Your task to perform on an android device: How much does a 2 bedroom apartment rent for in Chicago? Image 0: 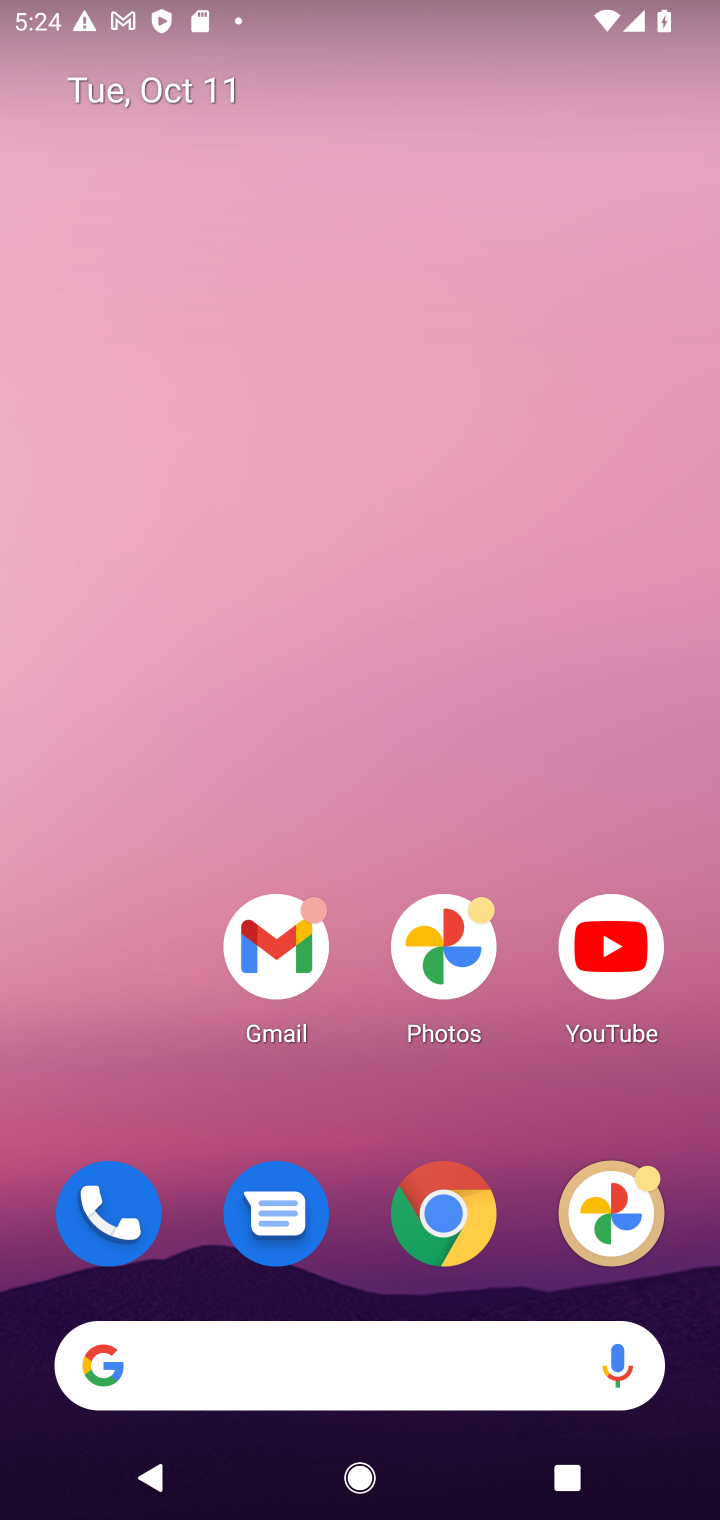
Step 0: drag from (383, 1175) to (404, 258)
Your task to perform on an android device: How much does a 2 bedroom apartment rent for in Chicago? Image 1: 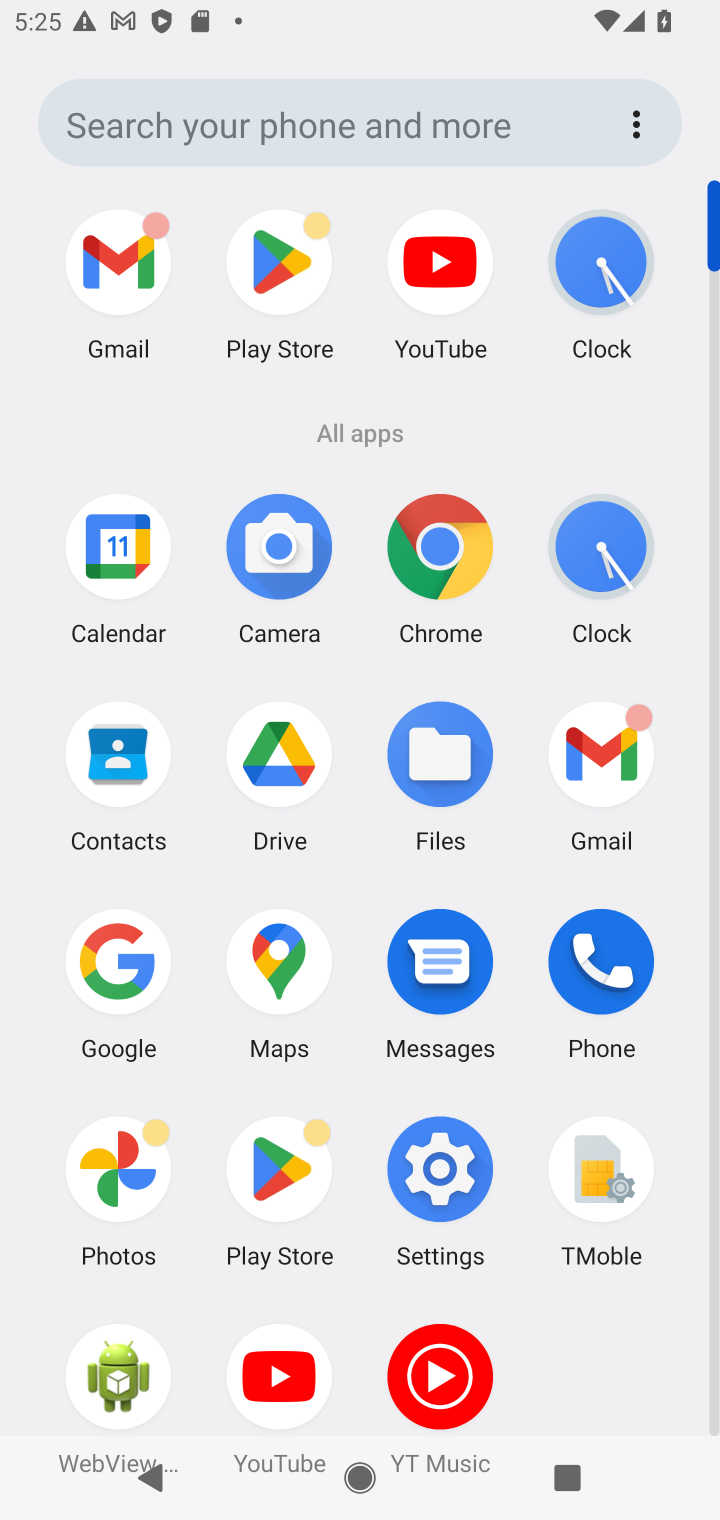
Step 1: click (113, 957)
Your task to perform on an android device: How much does a 2 bedroom apartment rent for in Chicago? Image 2: 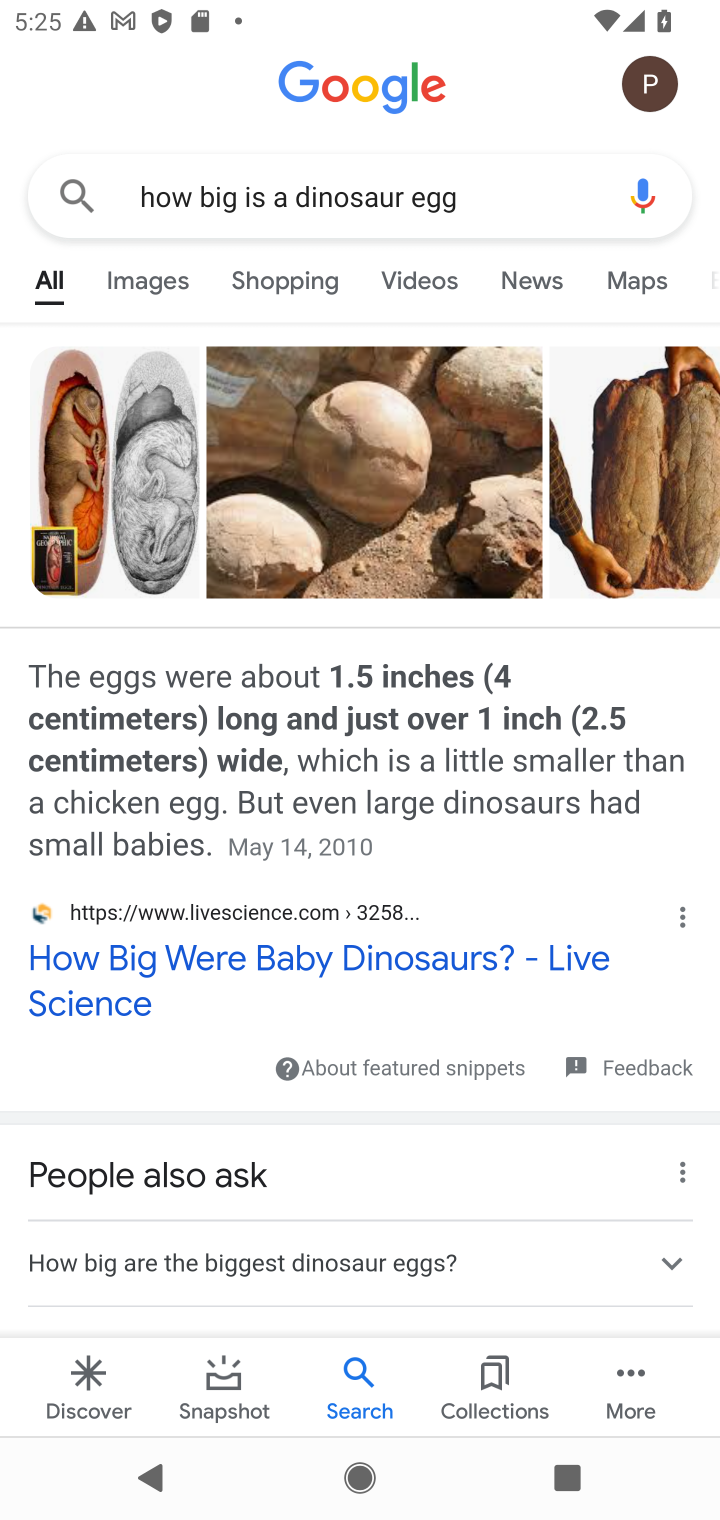
Step 2: click (308, 200)
Your task to perform on an android device: How much does a 2 bedroom apartment rent for in Chicago? Image 3: 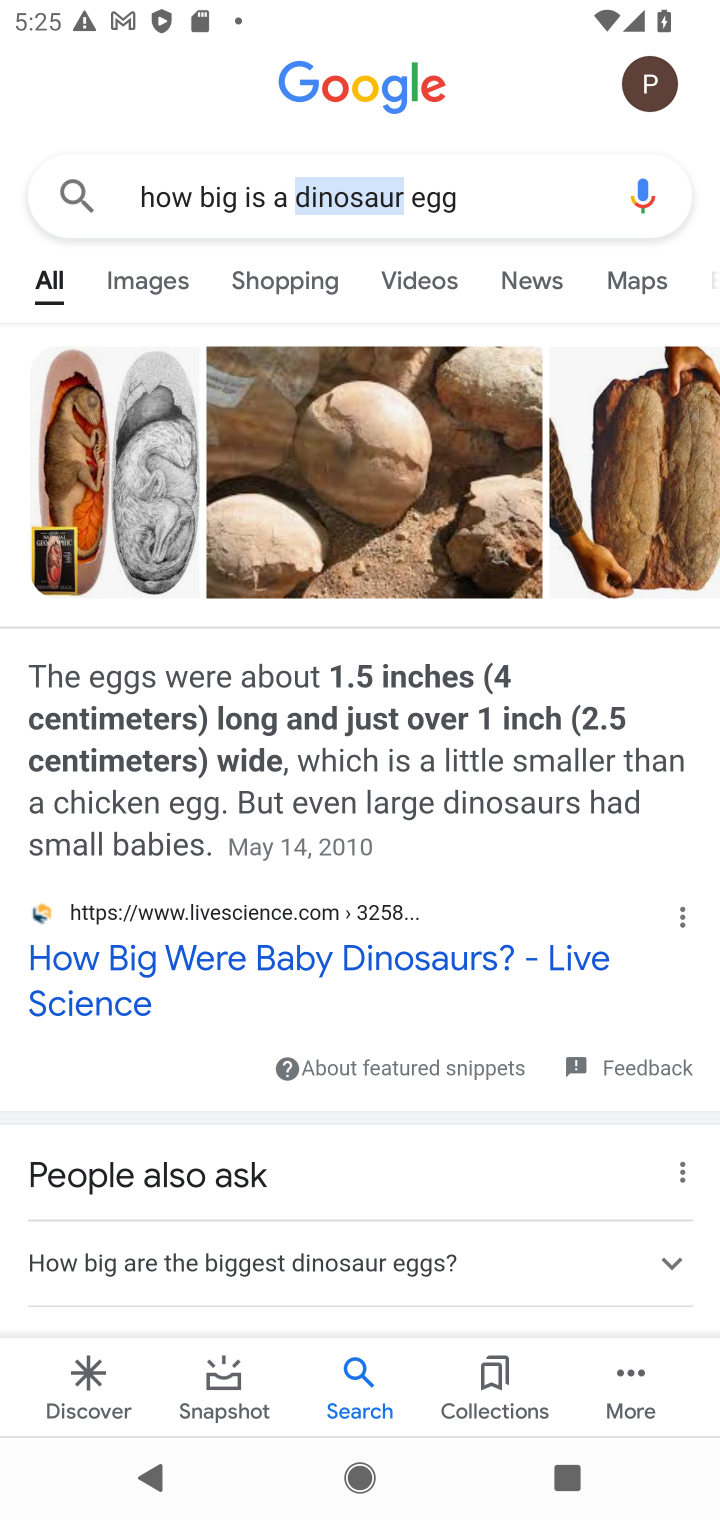
Step 3: click (308, 174)
Your task to perform on an android device: How much does a 2 bedroom apartment rent for in Chicago? Image 4: 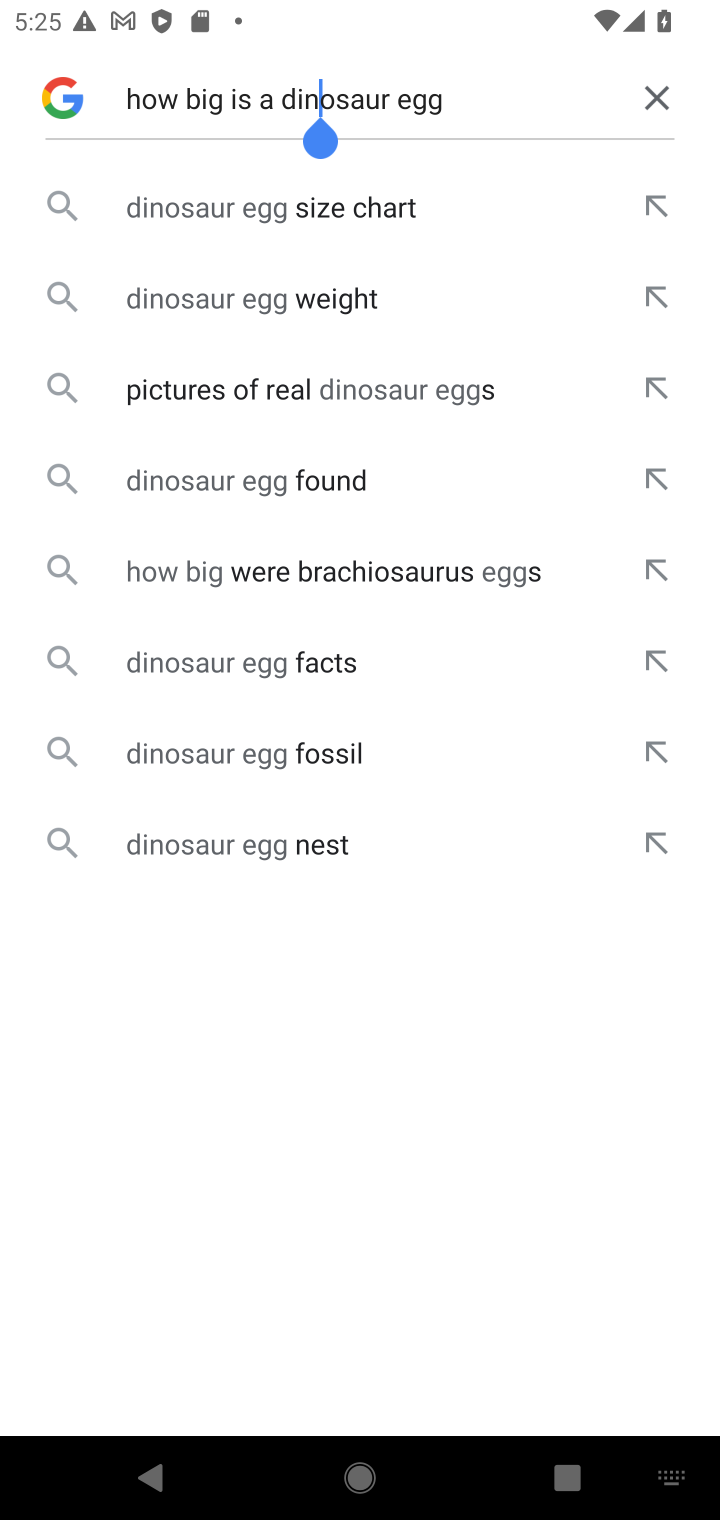
Step 4: click (646, 101)
Your task to perform on an android device: How much does a 2 bedroom apartment rent for in Chicago? Image 5: 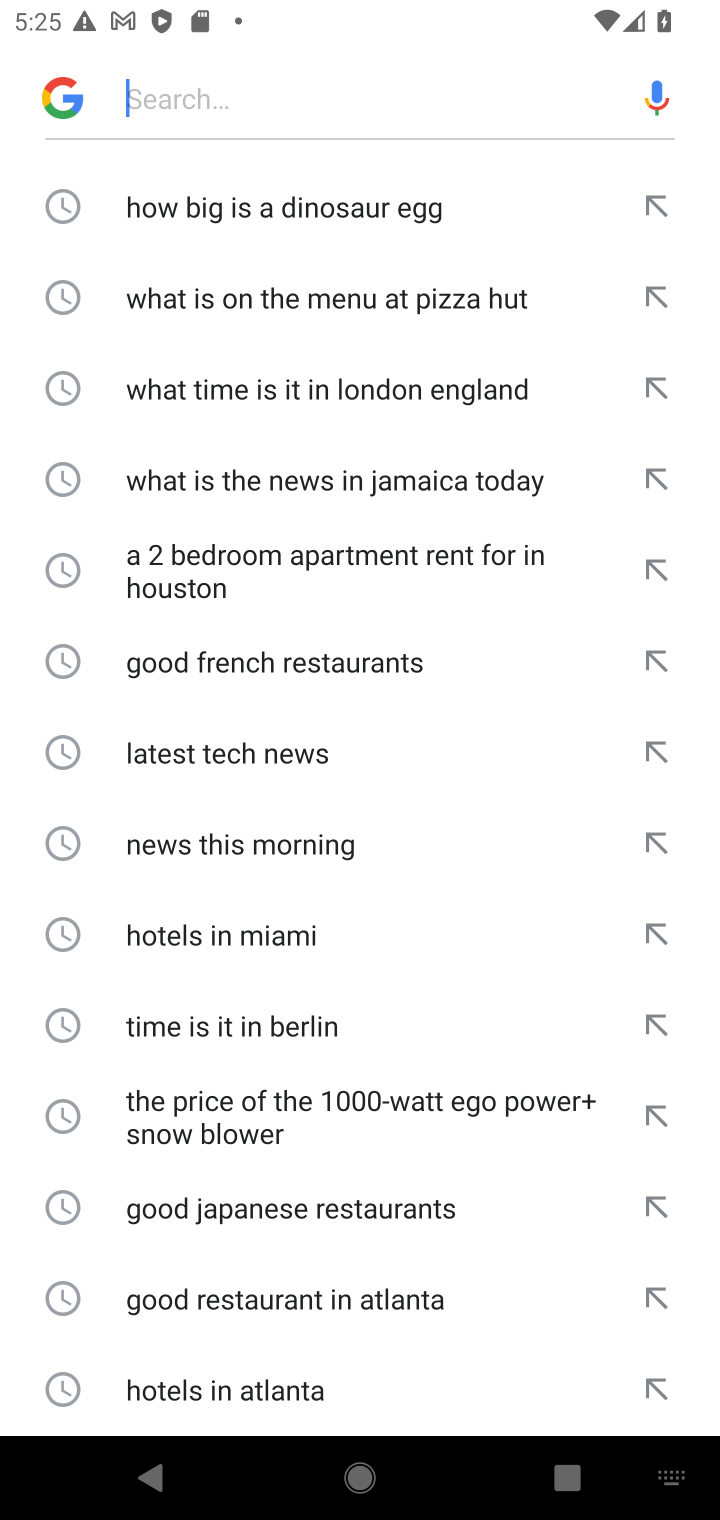
Step 5: type "How much does a 2 bedroom apartment rent for in Chicago?"
Your task to perform on an android device: How much does a 2 bedroom apartment rent for in Chicago? Image 6: 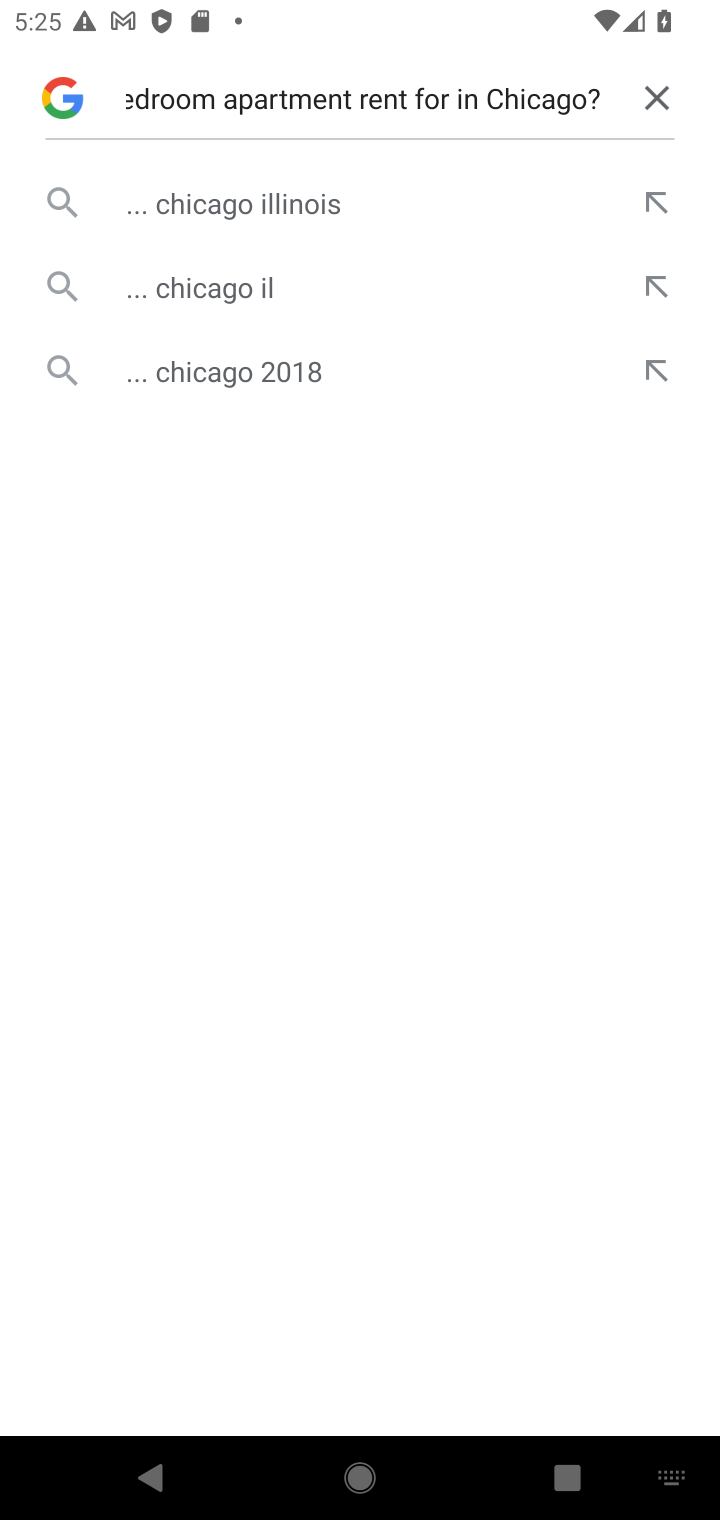
Step 6: click (277, 210)
Your task to perform on an android device: How much does a 2 bedroom apartment rent for in Chicago? Image 7: 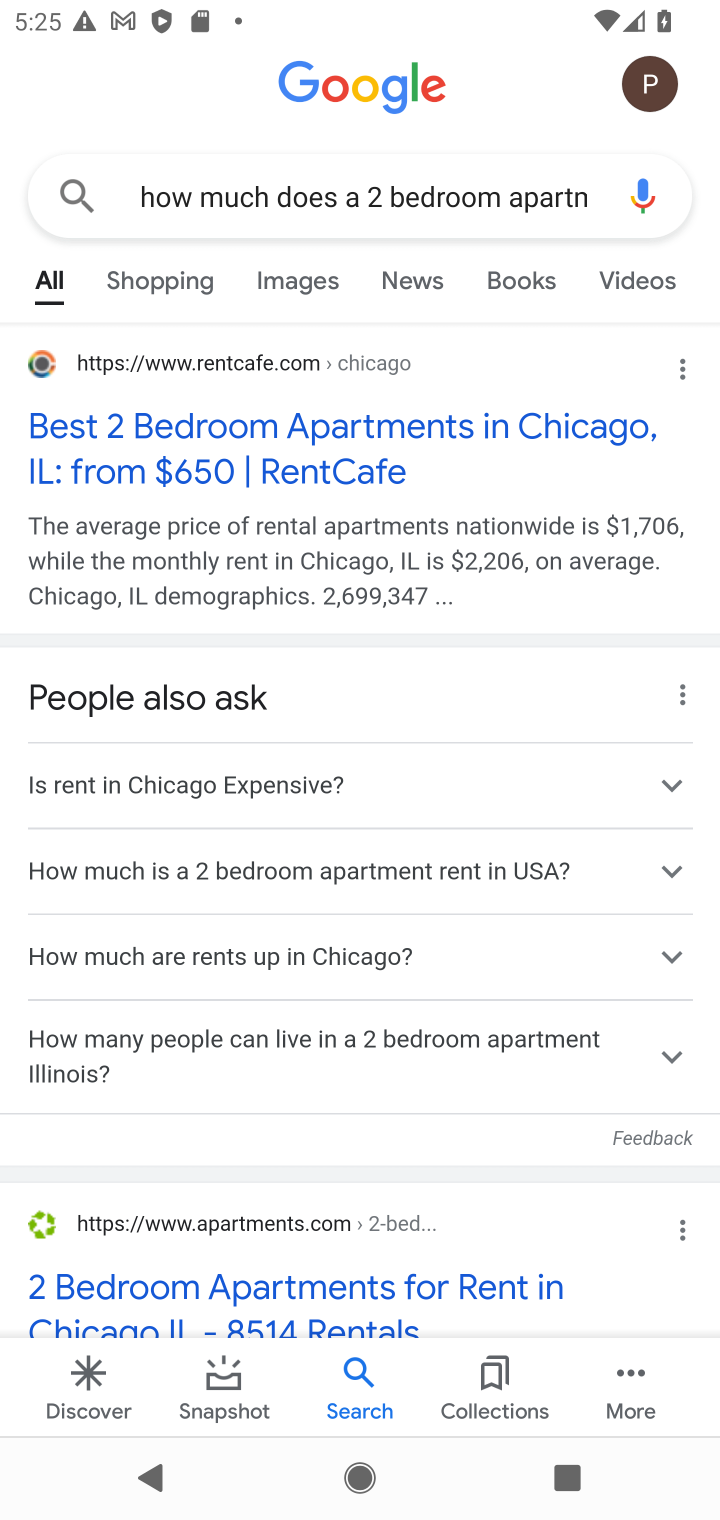
Step 7: click (151, 468)
Your task to perform on an android device: How much does a 2 bedroom apartment rent for in Chicago? Image 8: 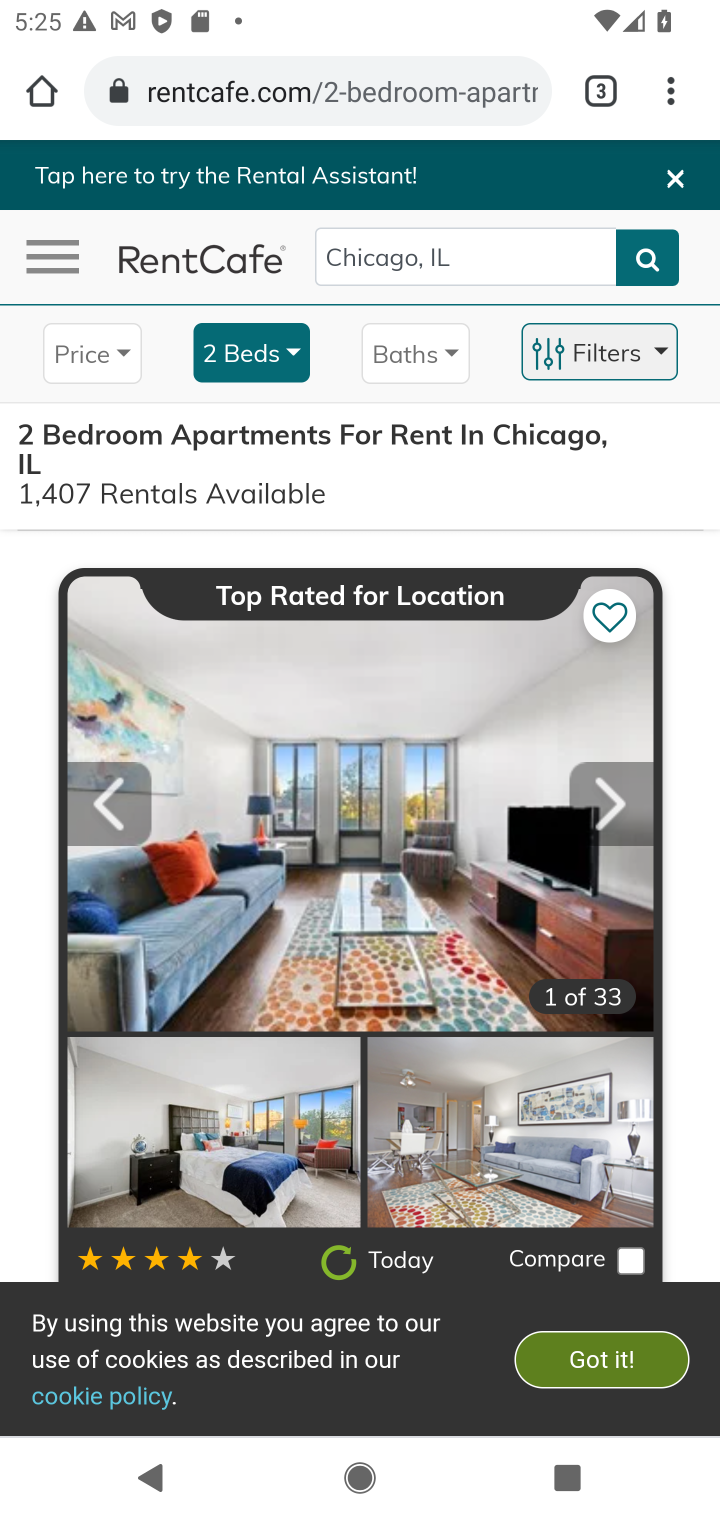
Step 8: task complete